Your task to perform on an android device: Open network settings Image 0: 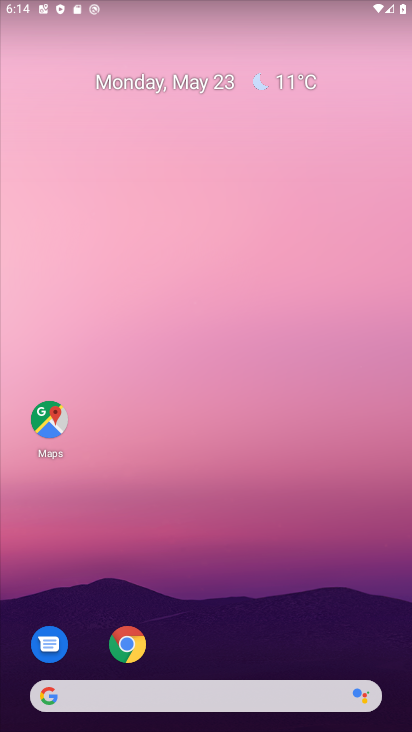
Step 0: drag from (246, 625) to (212, 175)
Your task to perform on an android device: Open network settings Image 1: 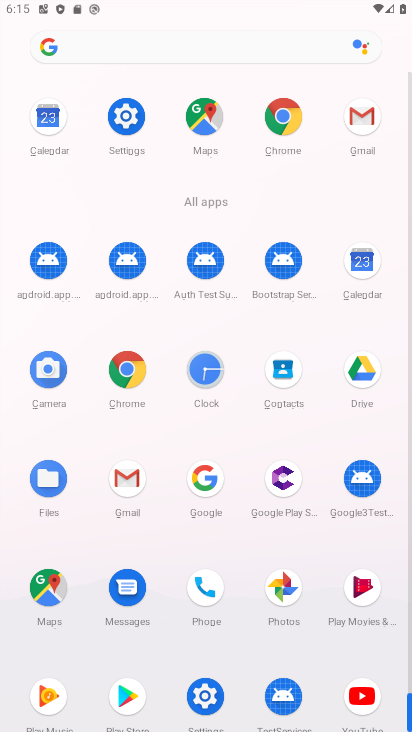
Step 1: click (117, 120)
Your task to perform on an android device: Open network settings Image 2: 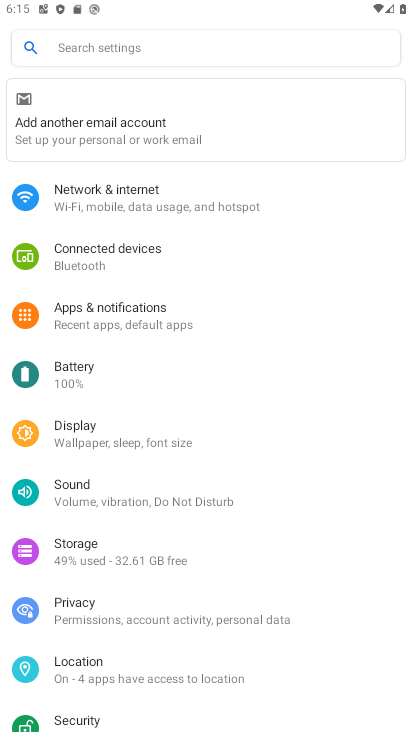
Step 2: click (131, 205)
Your task to perform on an android device: Open network settings Image 3: 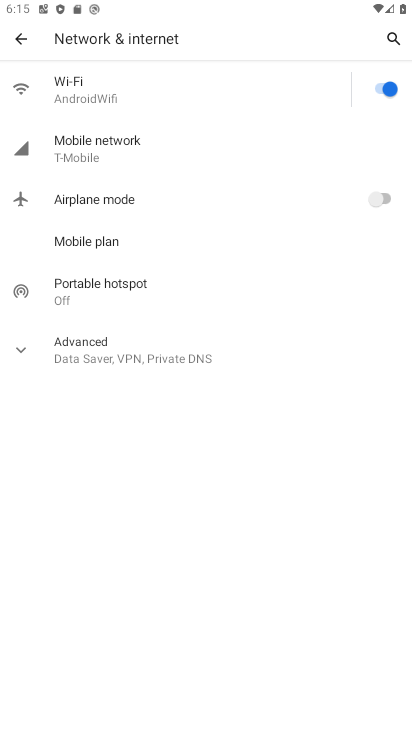
Step 3: task complete